Your task to perform on an android device: allow cookies in the chrome app Image 0: 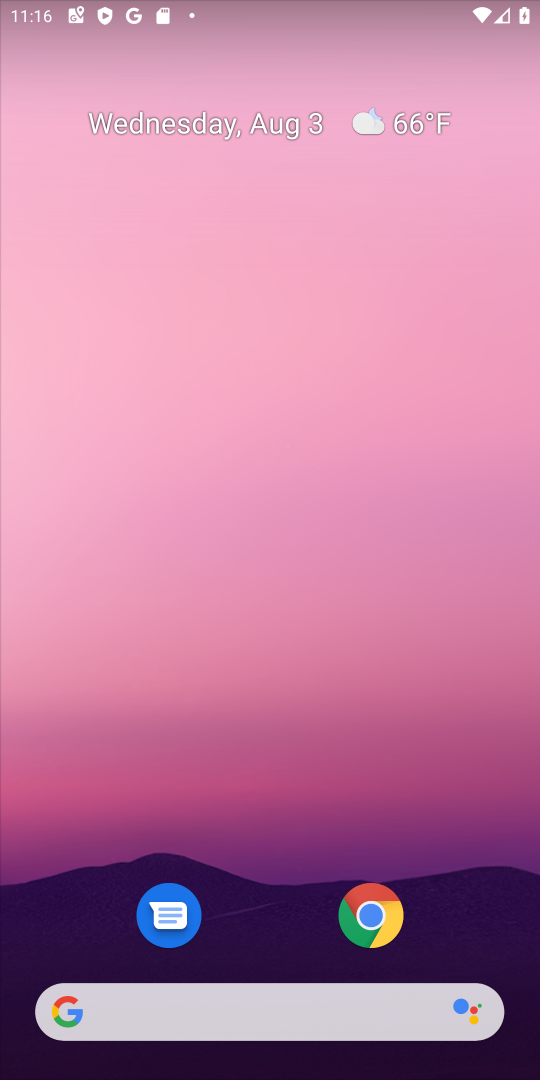
Step 0: press home button
Your task to perform on an android device: allow cookies in the chrome app Image 1: 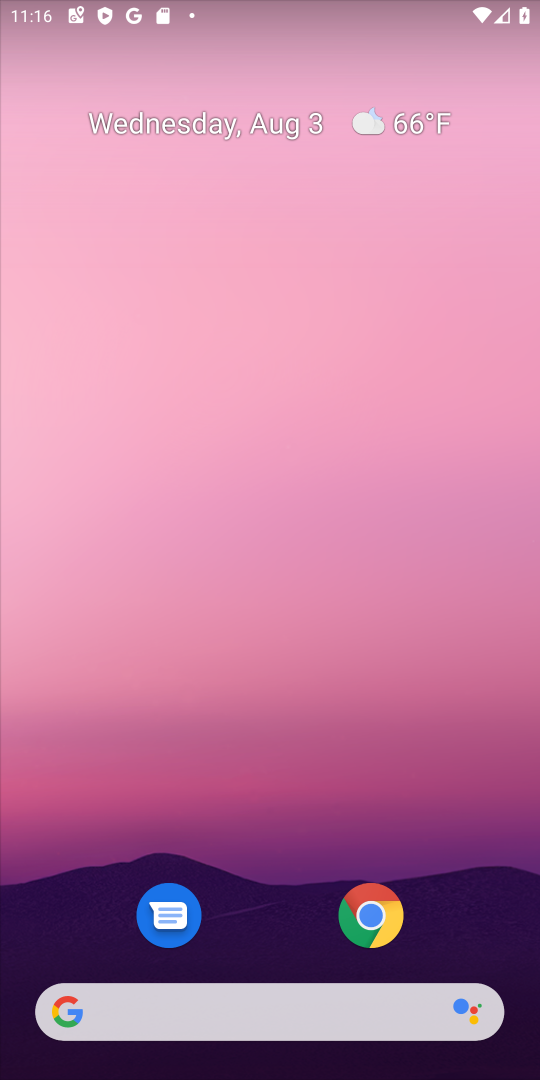
Step 1: click (371, 913)
Your task to perform on an android device: allow cookies in the chrome app Image 2: 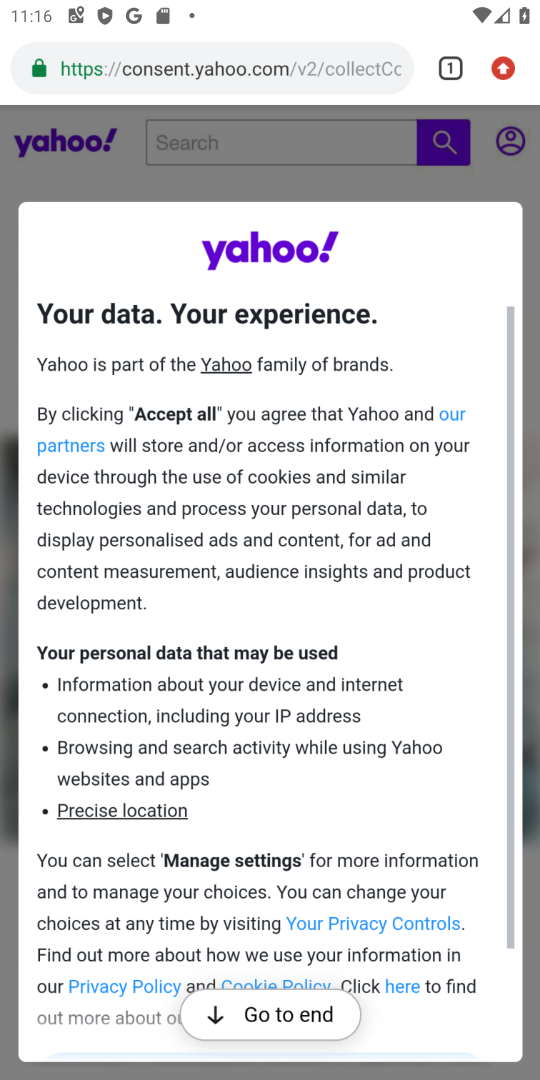
Step 2: click (371, 913)
Your task to perform on an android device: allow cookies in the chrome app Image 3: 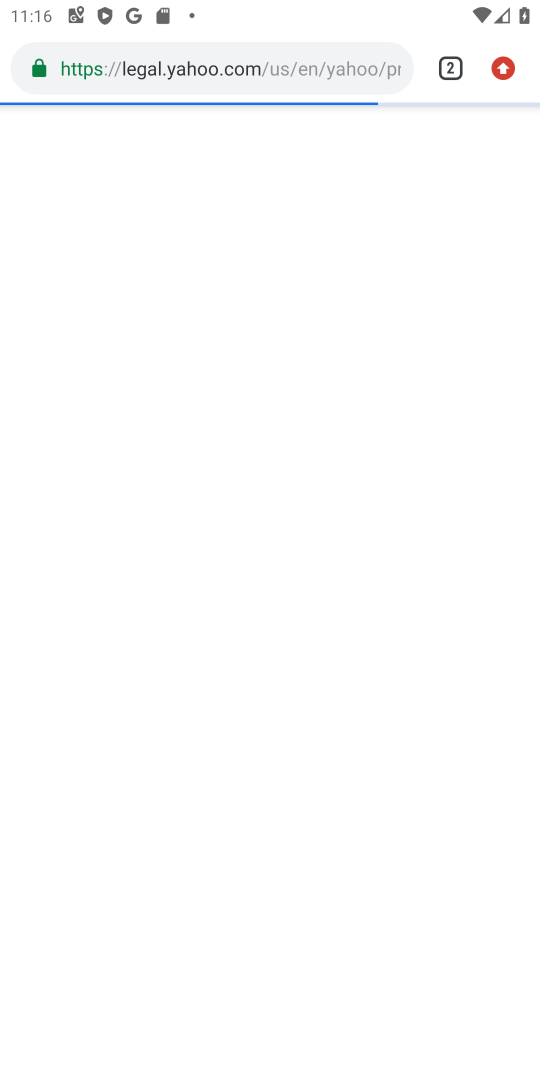
Step 3: click (505, 58)
Your task to perform on an android device: allow cookies in the chrome app Image 4: 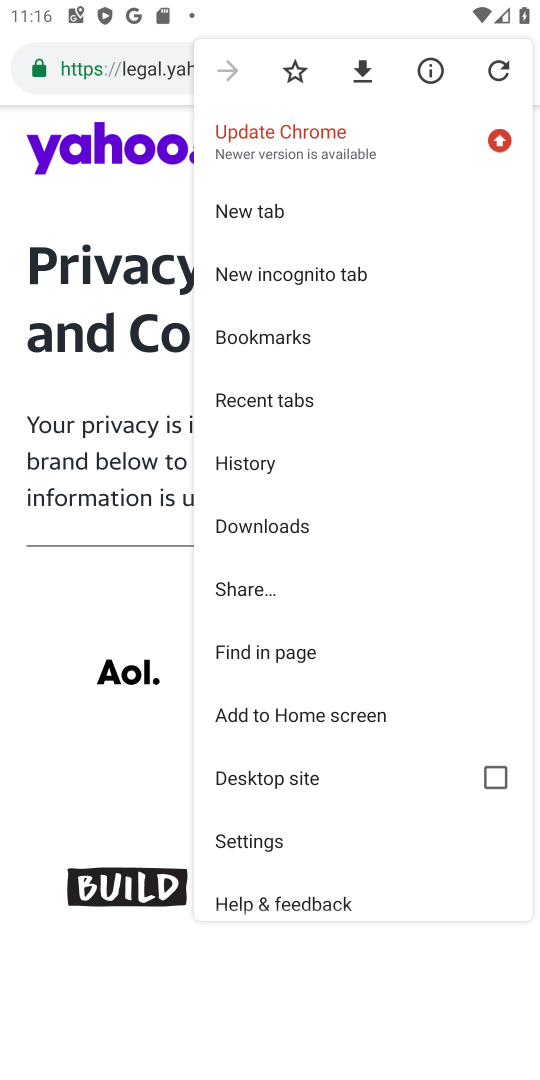
Step 4: click (248, 833)
Your task to perform on an android device: allow cookies in the chrome app Image 5: 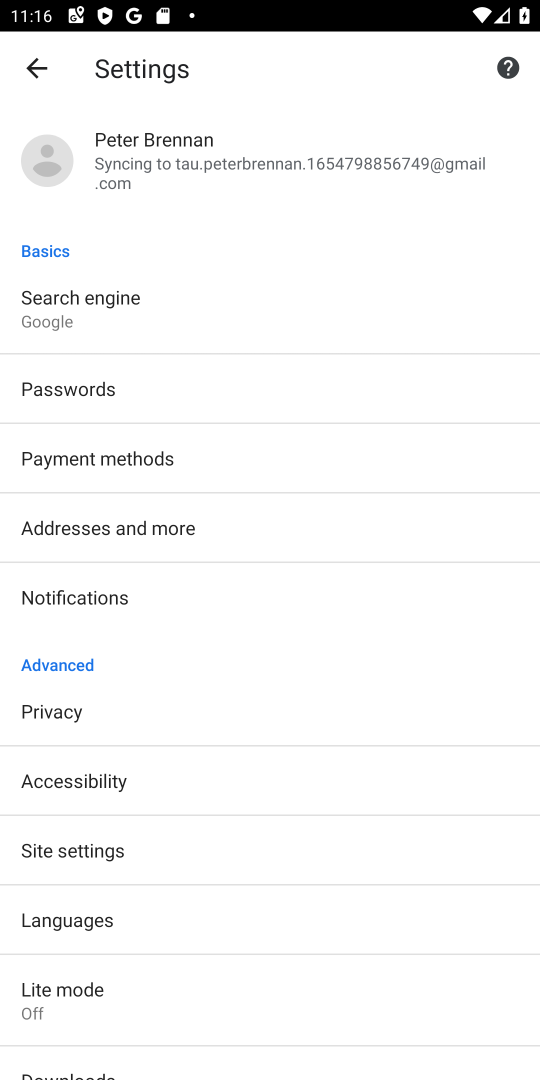
Step 5: drag from (353, 917) to (527, 340)
Your task to perform on an android device: allow cookies in the chrome app Image 6: 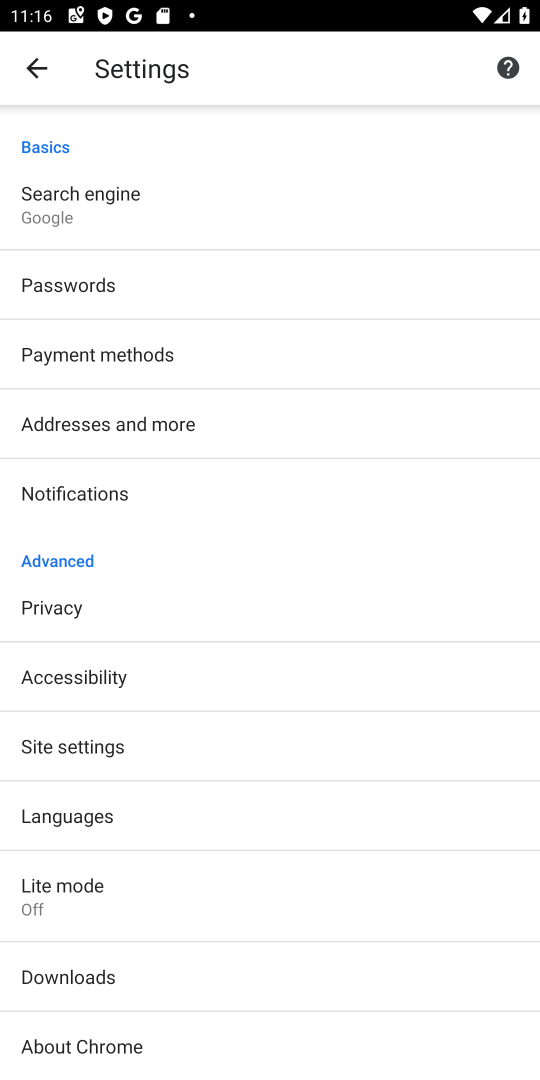
Step 6: drag from (311, 1002) to (329, 362)
Your task to perform on an android device: allow cookies in the chrome app Image 7: 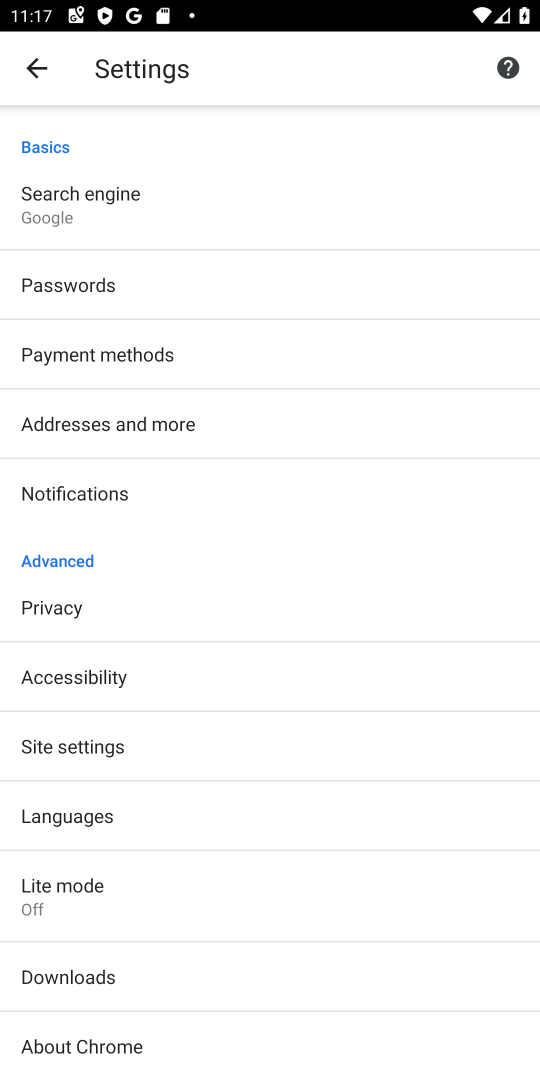
Step 7: click (152, 746)
Your task to perform on an android device: allow cookies in the chrome app Image 8: 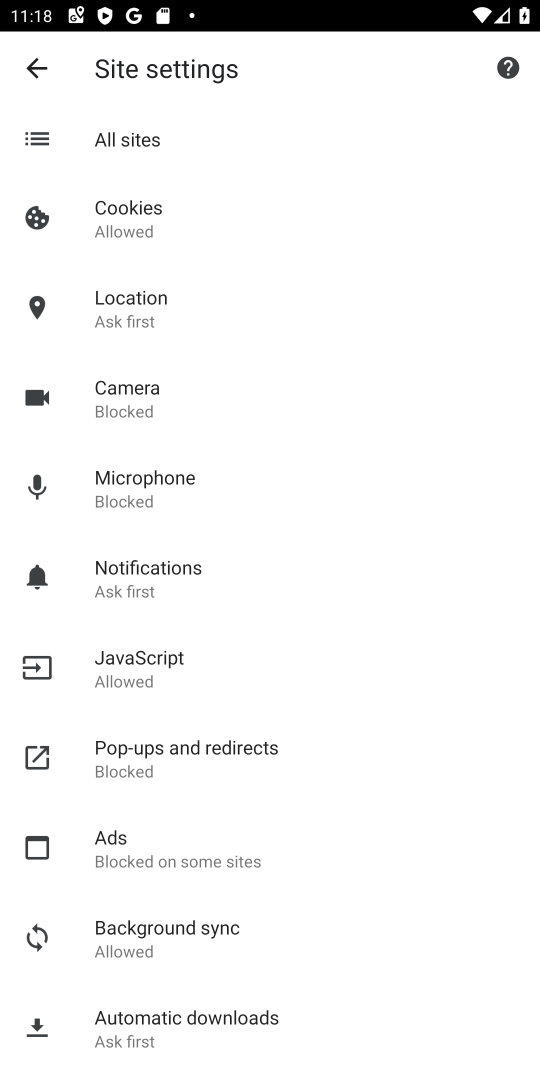
Step 8: click (122, 221)
Your task to perform on an android device: allow cookies in the chrome app Image 9: 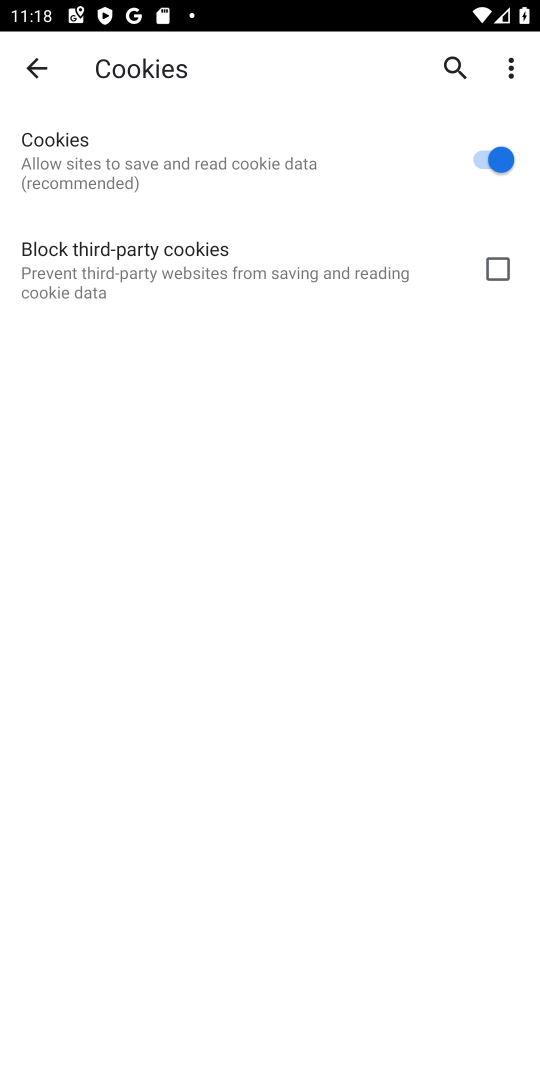
Step 9: task complete